Your task to perform on an android device: Go to eBay Image 0: 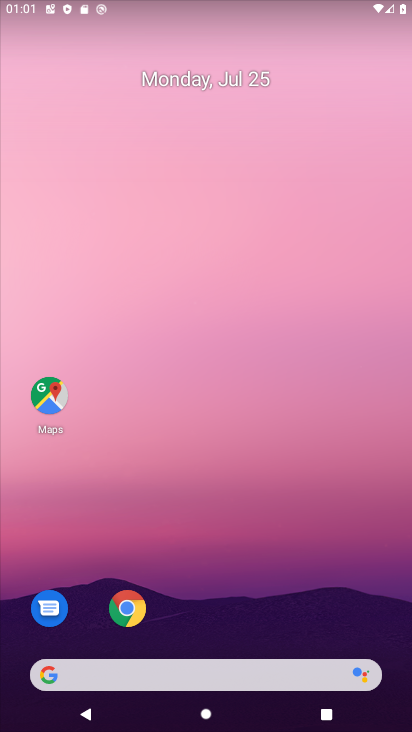
Step 0: drag from (230, 632) to (194, 28)
Your task to perform on an android device: Go to eBay Image 1: 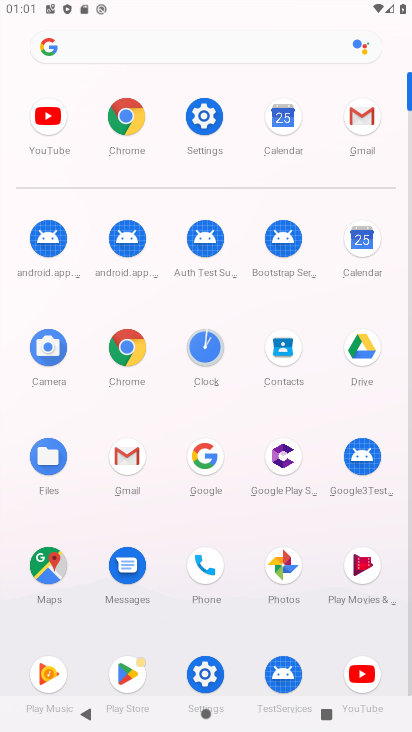
Step 1: click (109, 120)
Your task to perform on an android device: Go to eBay Image 2: 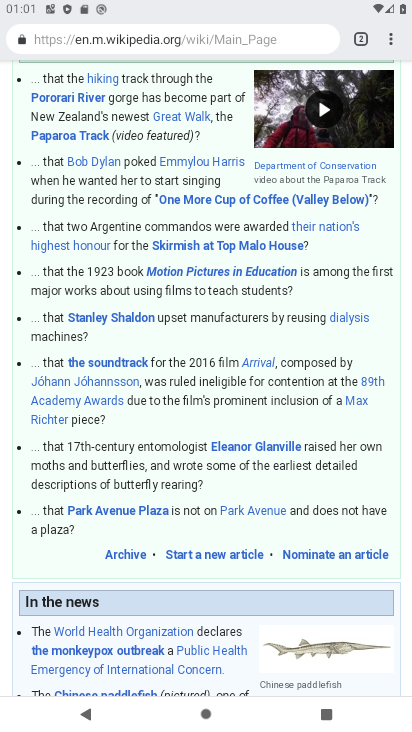
Step 2: click (360, 45)
Your task to perform on an android device: Go to eBay Image 3: 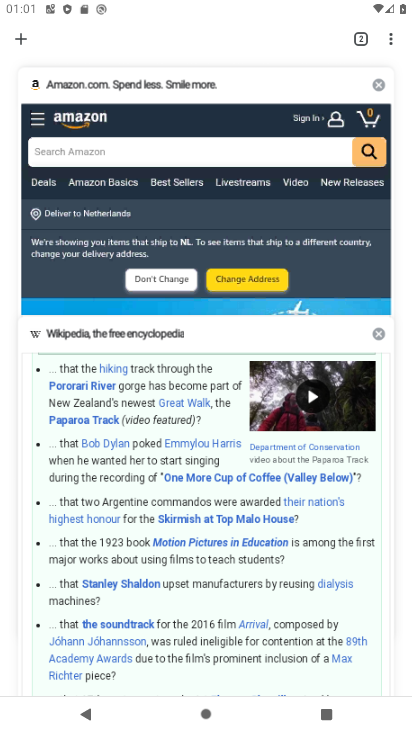
Step 3: click (23, 39)
Your task to perform on an android device: Go to eBay Image 4: 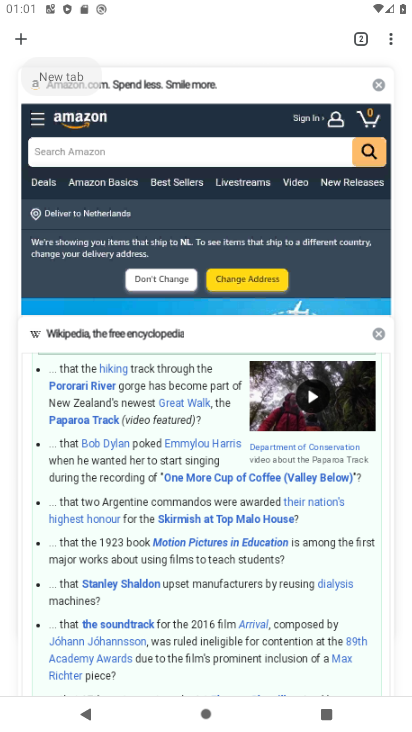
Step 4: click (19, 43)
Your task to perform on an android device: Go to eBay Image 5: 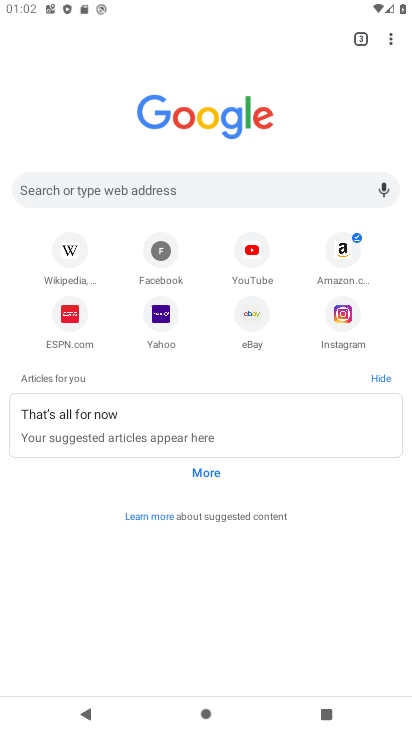
Step 5: click (230, 318)
Your task to perform on an android device: Go to eBay Image 6: 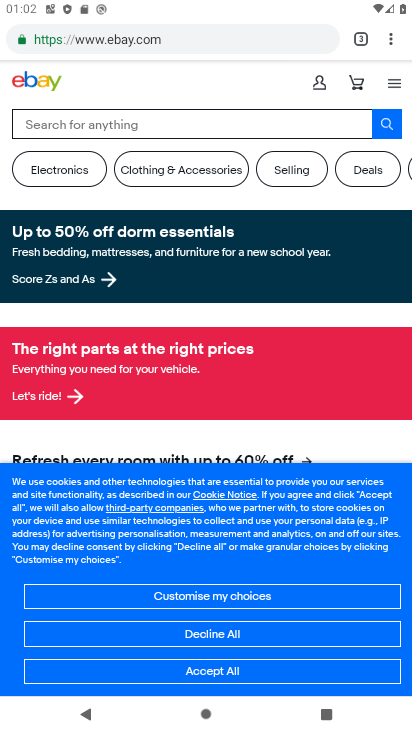
Step 6: task complete